Your task to perform on an android device: manage bookmarks in the chrome app Image 0: 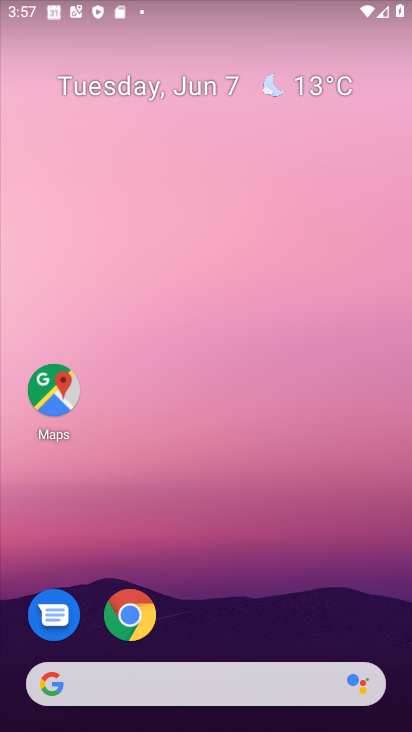
Step 0: drag from (176, 434) to (116, 70)
Your task to perform on an android device: manage bookmarks in the chrome app Image 1: 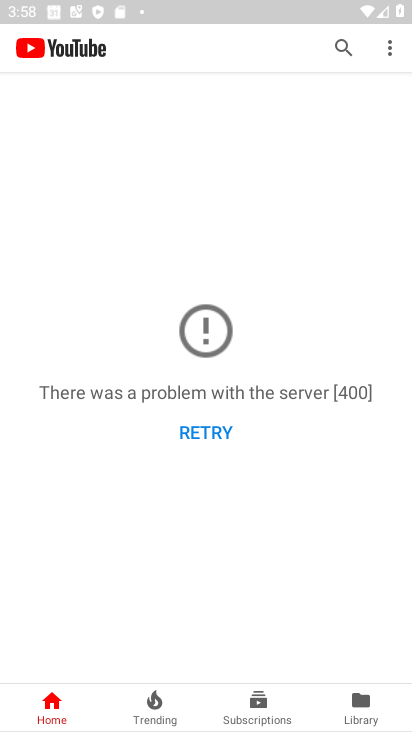
Step 1: press back button
Your task to perform on an android device: manage bookmarks in the chrome app Image 2: 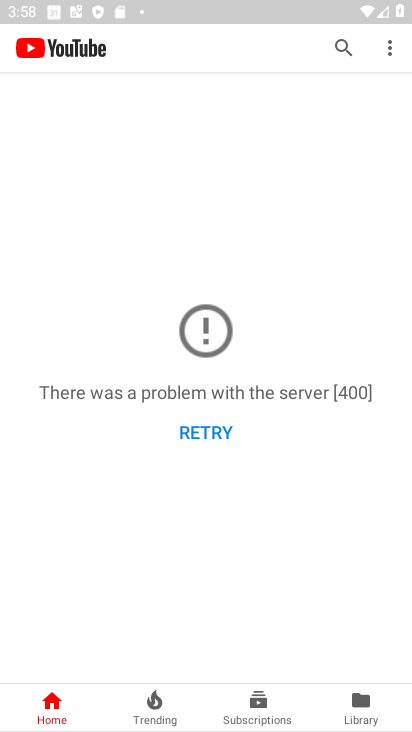
Step 2: press back button
Your task to perform on an android device: manage bookmarks in the chrome app Image 3: 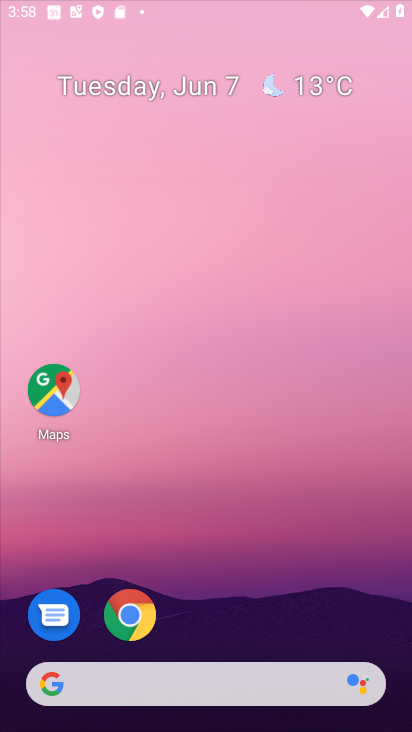
Step 3: press back button
Your task to perform on an android device: manage bookmarks in the chrome app Image 4: 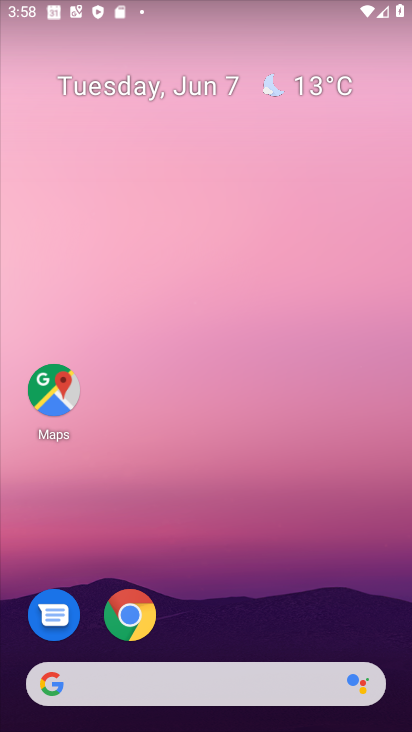
Step 4: drag from (204, 571) to (145, 11)
Your task to perform on an android device: manage bookmarks in the chrome app Image 5: 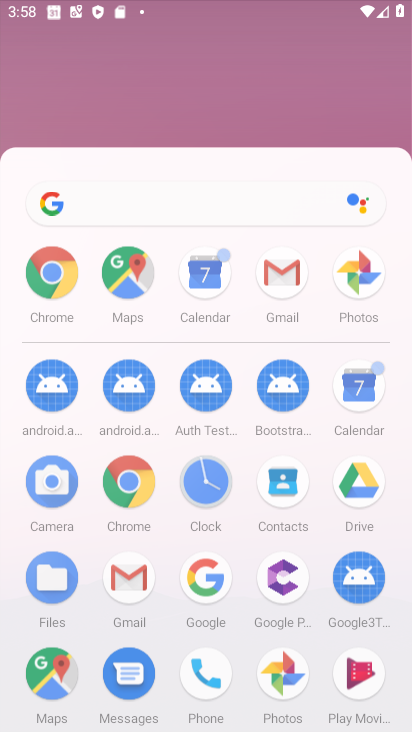
Step 5: drag from (235, 501) to (94, 220)
Your task to perform on an android device: manage bookmarks in the chrome app Image 6: 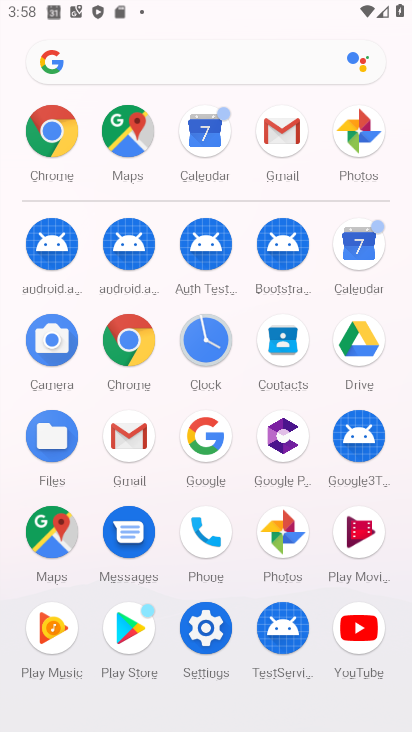
Step 6: click (142, 171)
Your task to perform on an android device: manage bookmarks in the chrome app Image 7: 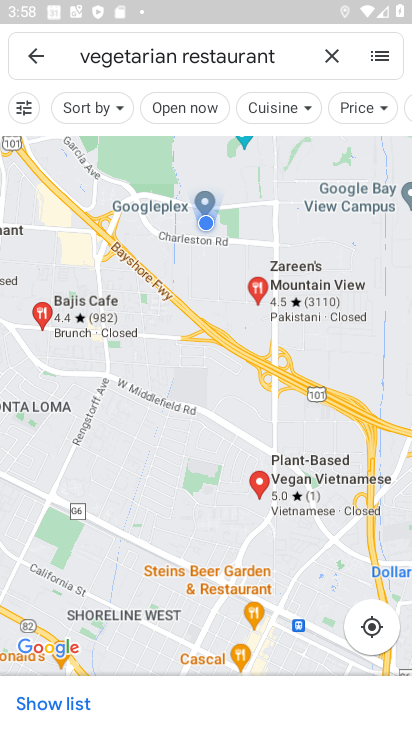
Step 7: click (35, 54)
Your task to perform on an android device: manage bookmarks in the chrome app Image 8: 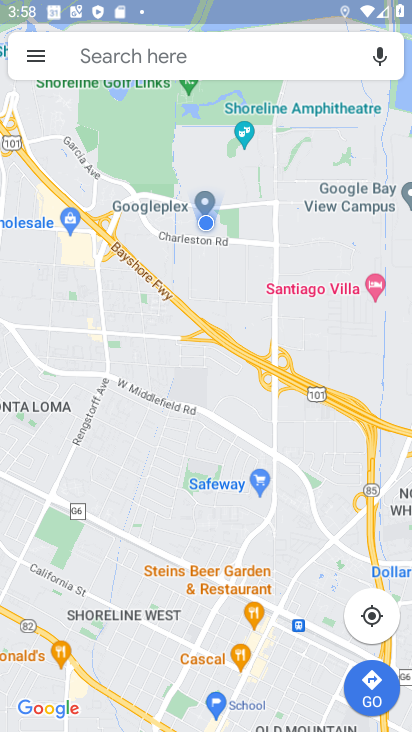
Step 8: press home button
Your task to perform on an android device: manage bookmarks in the chrome app Image 9: 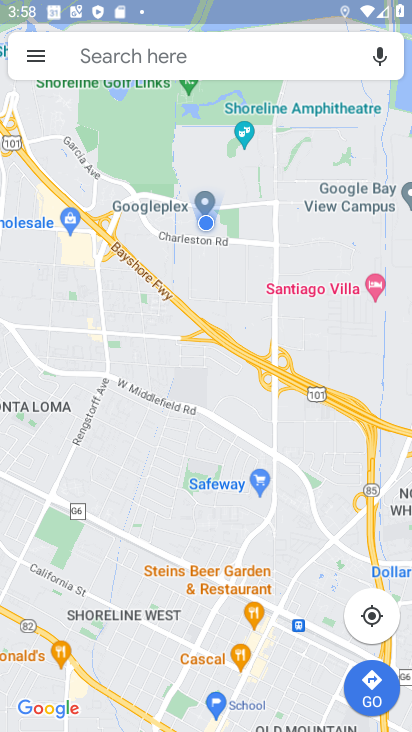
Step 9: press home button
Your task to perform on an android device: manage bookmarks in the chrome app Image 10: 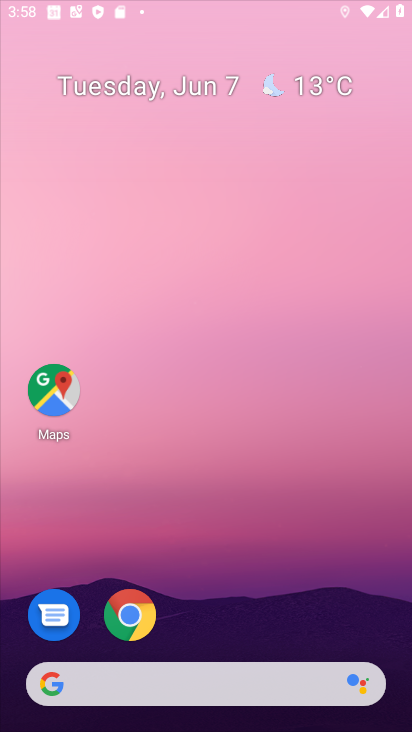
Step 10: press home button
Your task to perform on an android device: manage bookmarks in the chrome app Image 11: 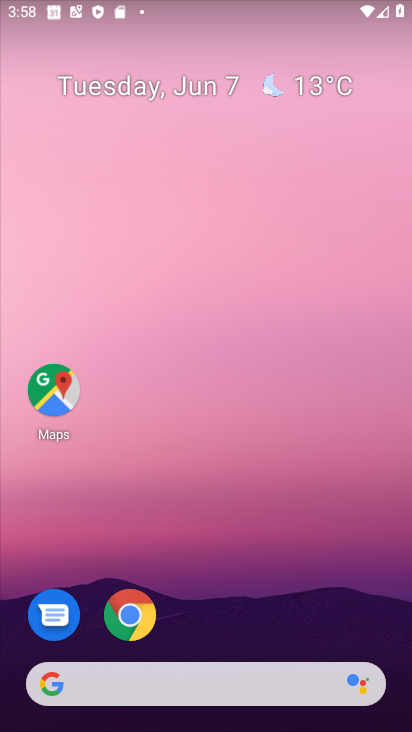
Step 11: drag from (133, 4) to (204, 10)
Your task to perform on an android device: manage bookmarks in the chrome app Image 12: 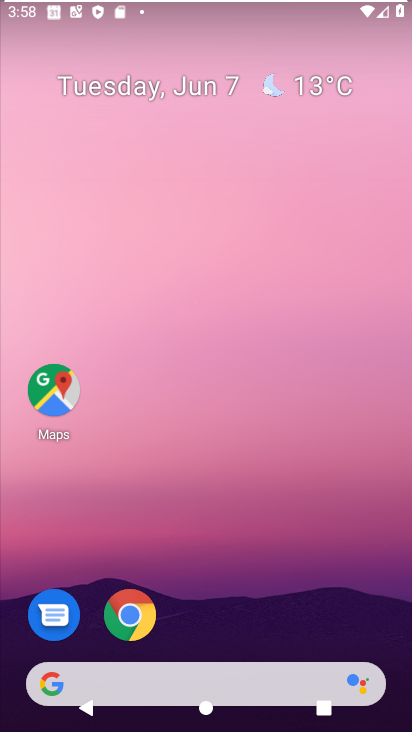
Step 12: drag from (266, 463) to (204, 71)
Your task to perform on an android device: manage bookmarks in the chrome app Image 13: 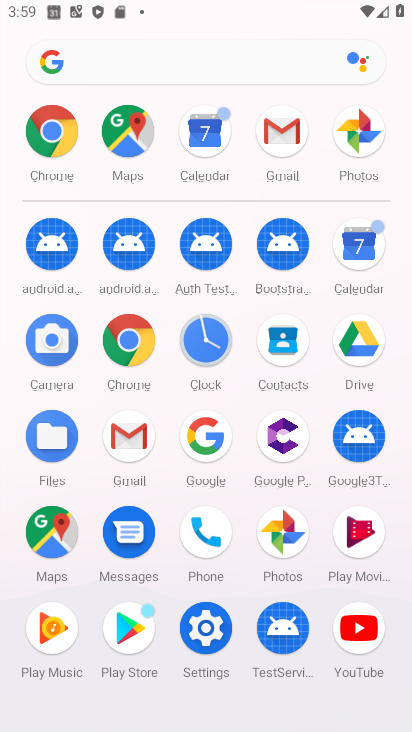
Step 13: drag from (158, 390) to (107, 39)
Your task to perform on an android device: manage bookmarks in the chrome app Image 14: 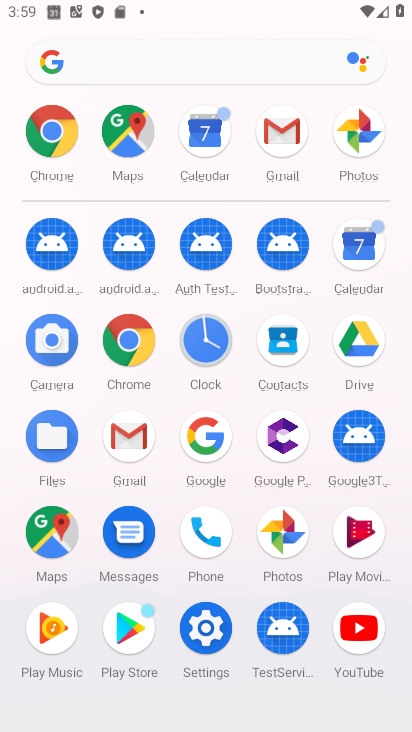
Step 14: click (136, 357)
Your task to perform on an android device: manage bookmarks in the chrome app Image 15: 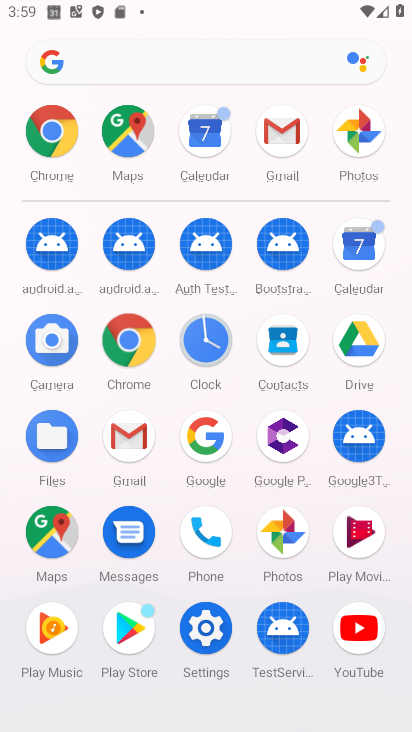
Step 15: click (135, 354)
Your task to perform on an android device: manage bookmarks in the chrome app Image 16: 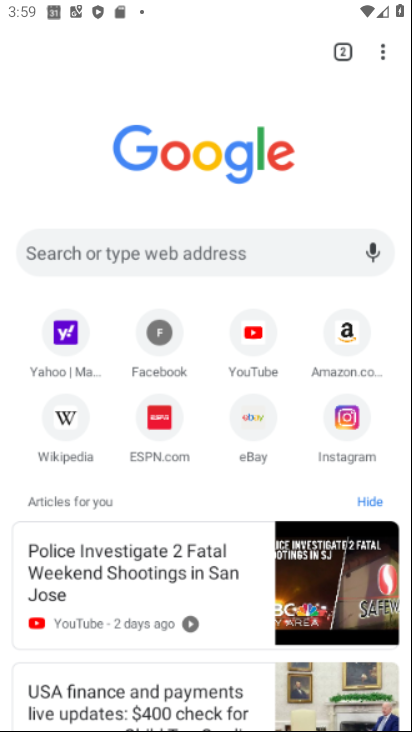
Step 16: click (136, 354)
Your task to perform on an android device: manage bookmarks in the chrome app Image 17: 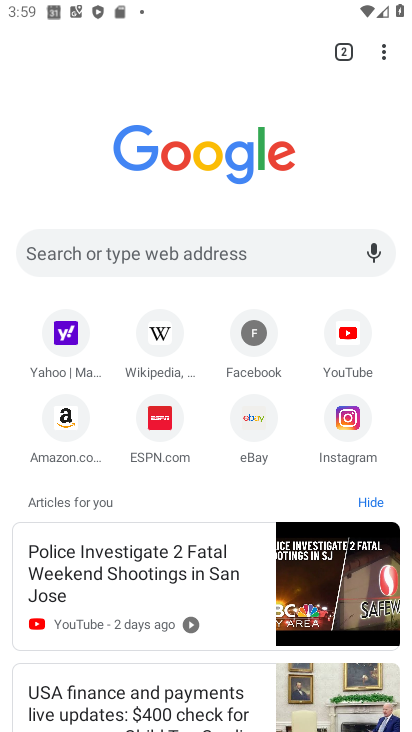
Step 17: drag from (373, 54) to (198, 263)
Your task to perform on an android device: manage bookmarks in the chrome app Image 18: 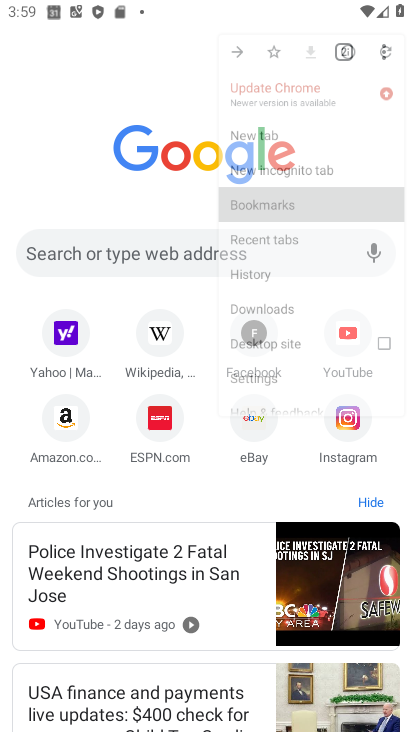
Step 18: click (198, 263)
Your task to perform on an android device: manage bookmarks in the chrome app Image 19: 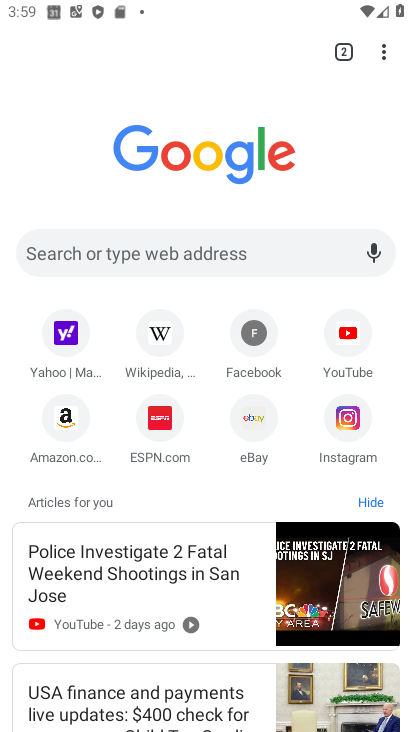
Step 19: click (199, 263)
Your task to perform on an android device: manage bookmarks in the chrome app Image 20: 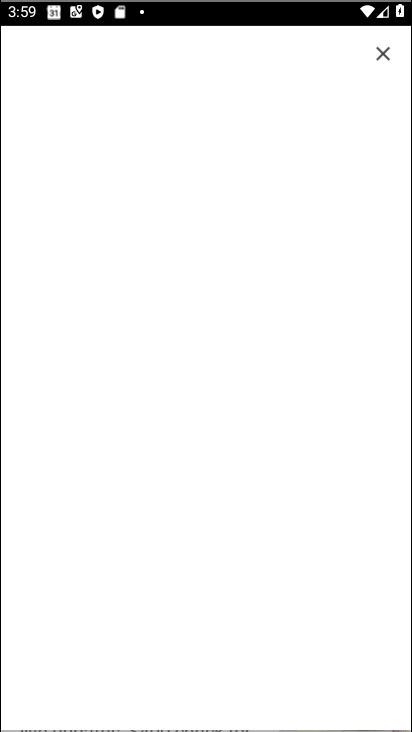
Step 20: click (199, 263)
Your task to perform on an android device: manage bookmarks in the chrome app Image 21: 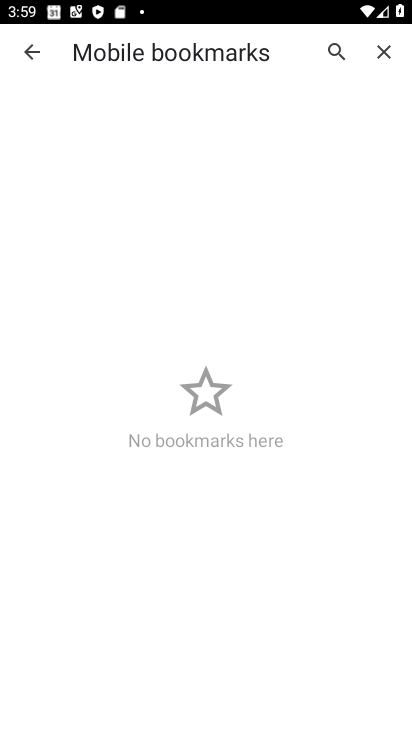
Step 21: task complete